Your task to perform on an android device: uninstall "DoorDash - Food Delivery" Image 0: 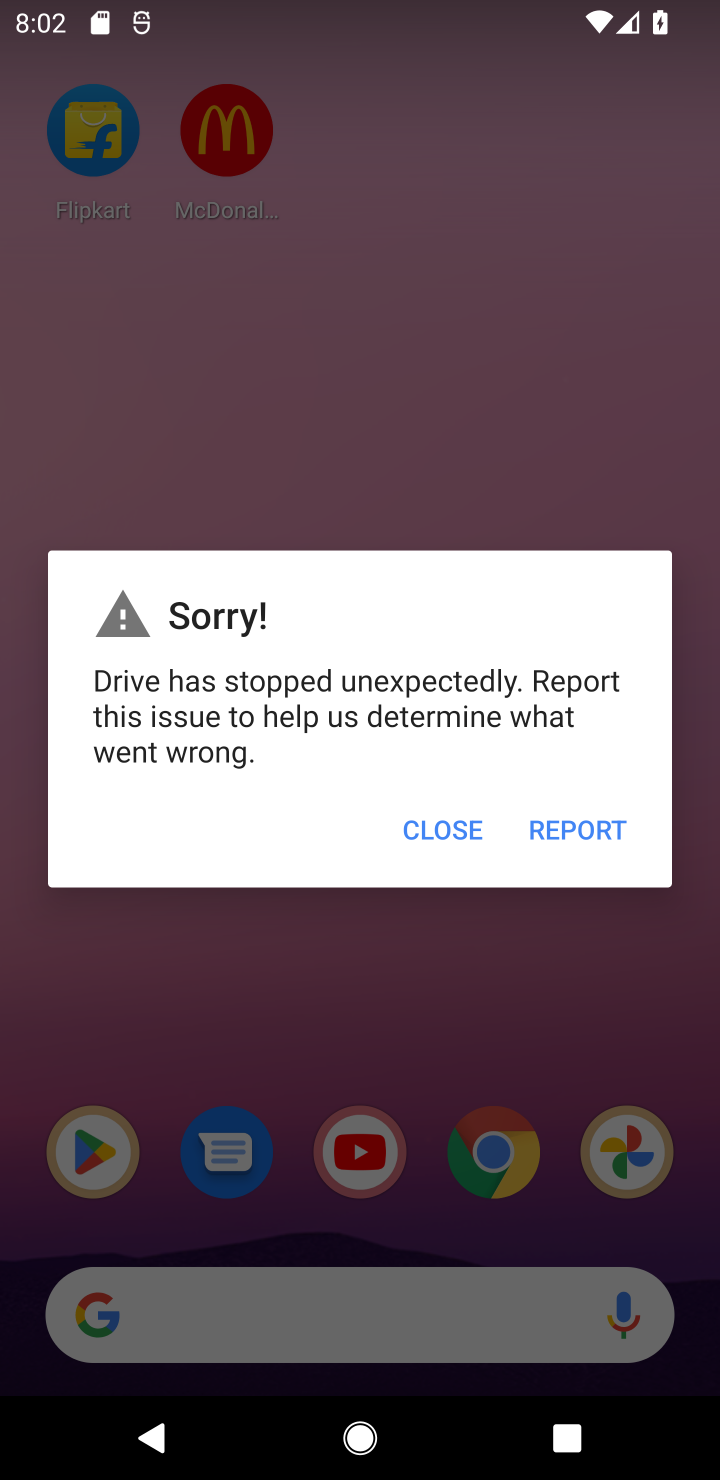
Step 0: click (411, 833)
Your task to perform on an android device: uninstall "DoorDash - Food Delivery" Image 1: 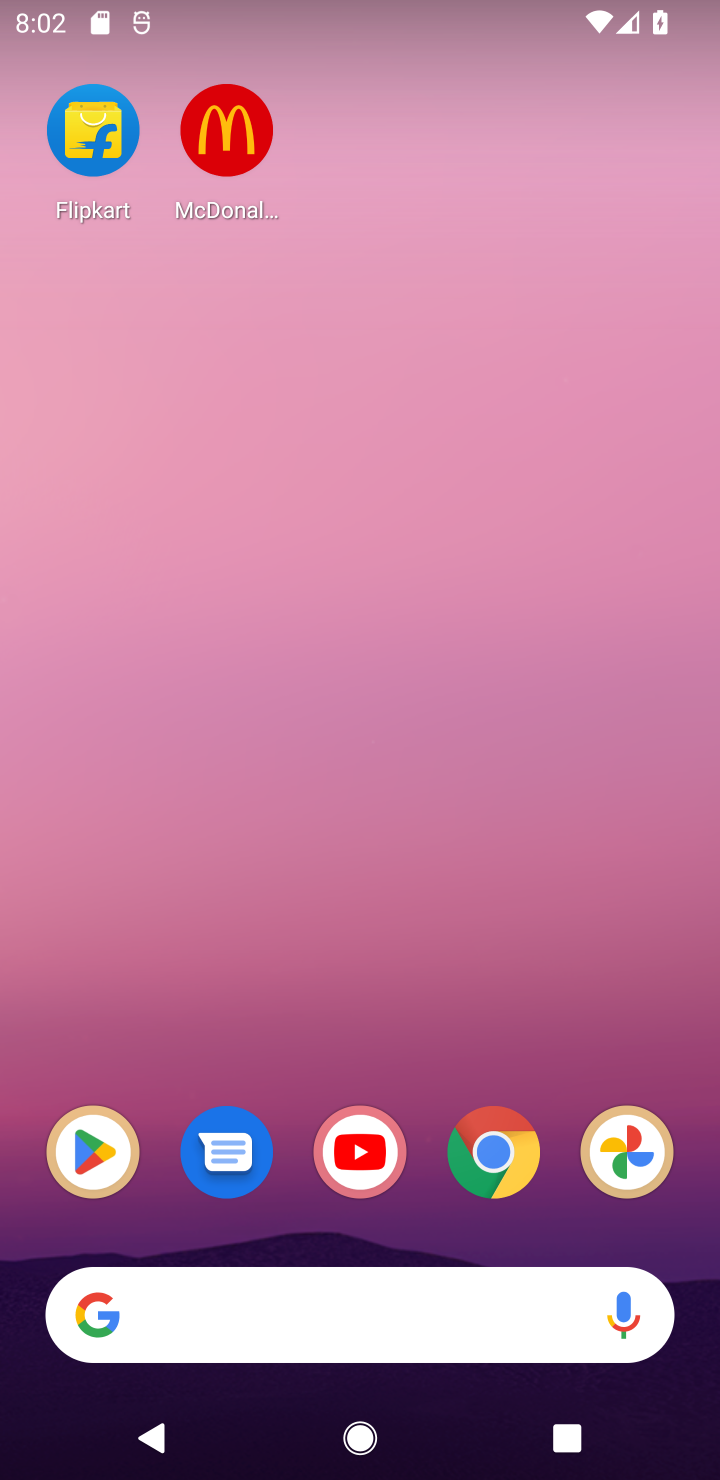
Step 1: drag from (240, 1334) to (265, 363)
Your task to perform on an android device: uninstall "DoorDash - Food Delivery" Image 2: 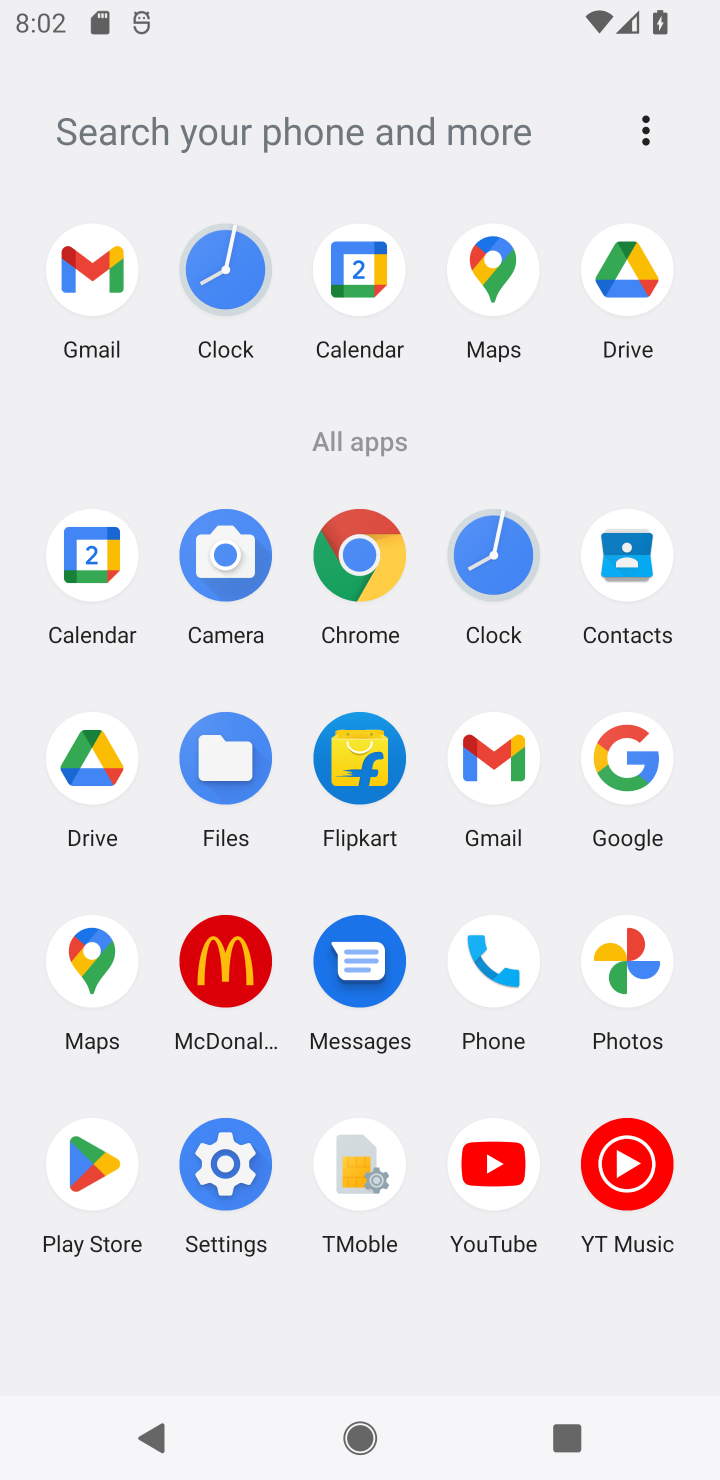
Step 2: click (96, 1271)
Your task to perform on an android device: uninstall "DoorDash - Food Delivery" Image 3: 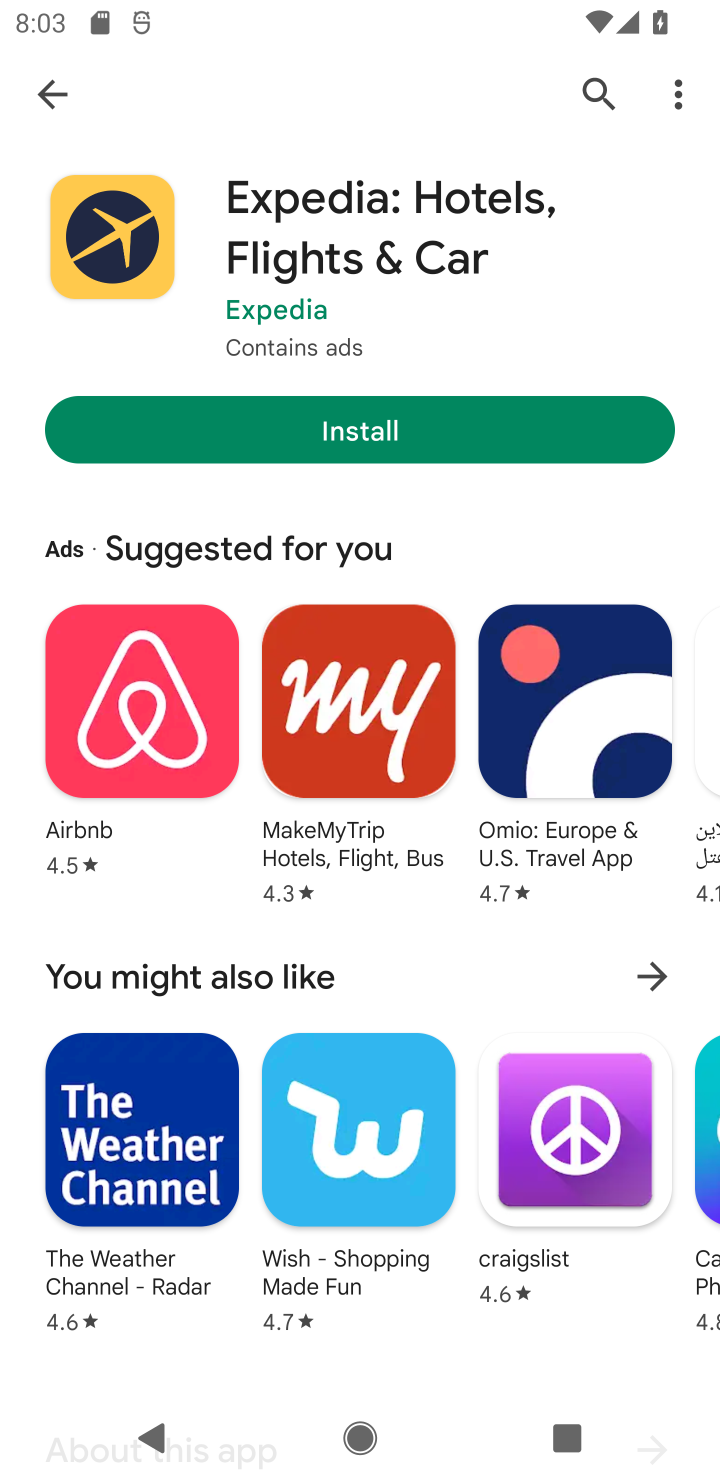
Step 3: click (45, 87)
Your task to perform on an android device: uninstall "DoorDash - Food Delivery" Image 4: 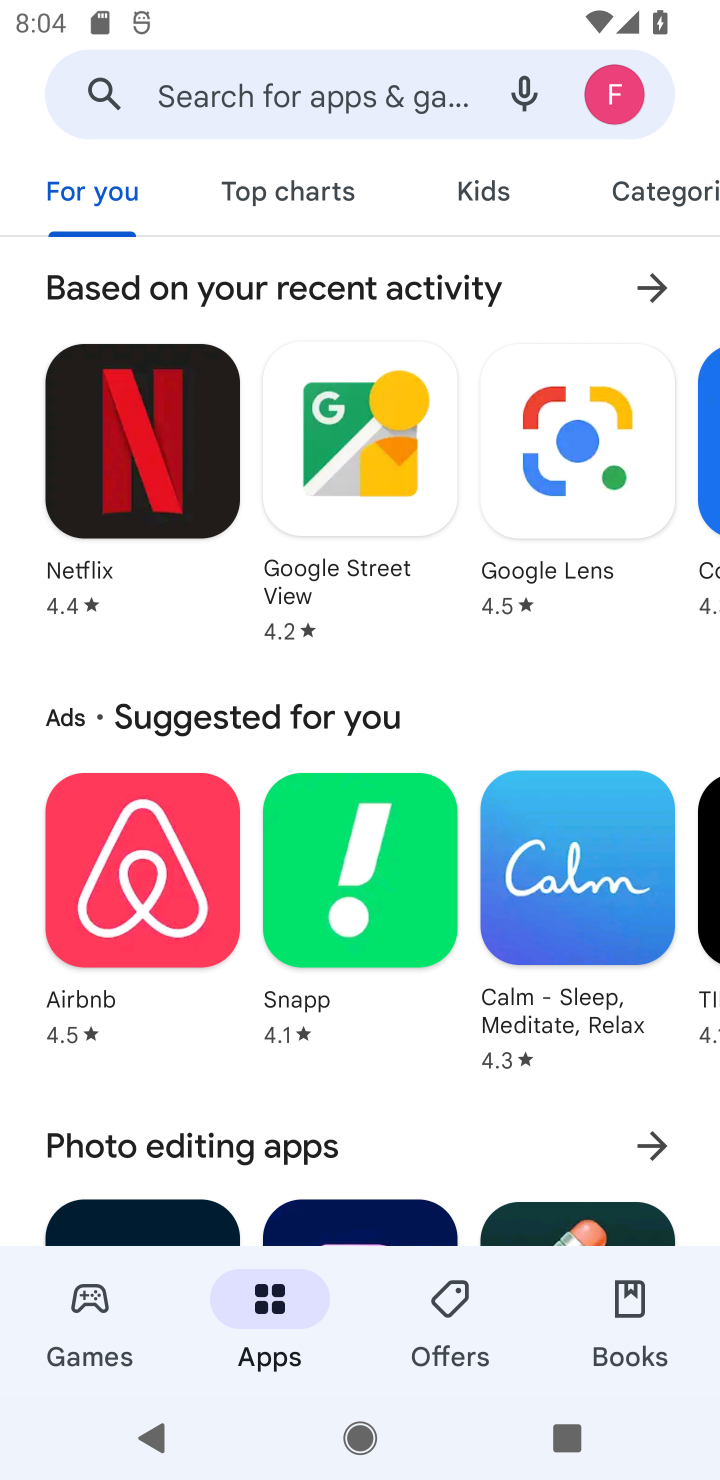
Step 4: click (248, 88)
Your task to perform on an android device: uninstall "DoorDash - Food Delivery" Image 5: 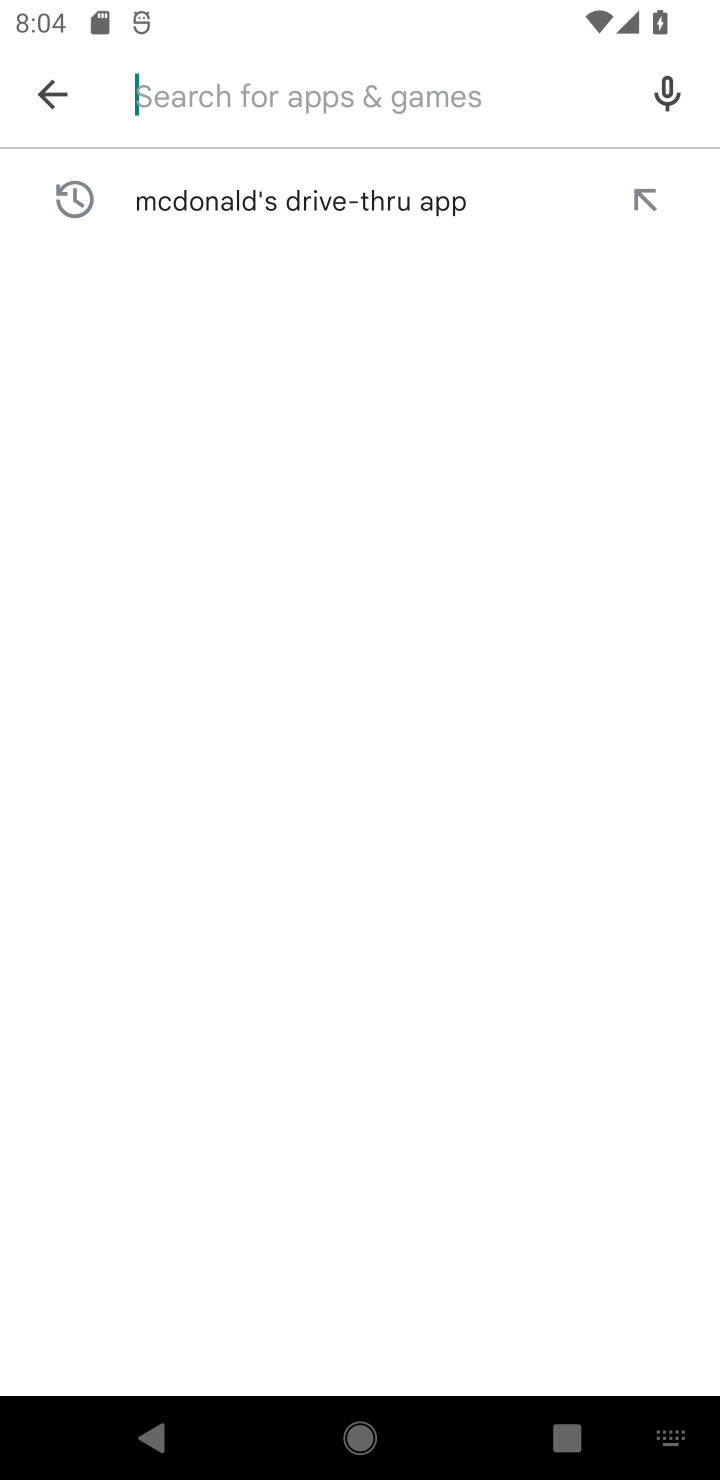
Step 5: type "DoorDash - Food Delivery"
Your task to perform on an android device: uninstall "DoorDash - Food Delivery" Image 6: 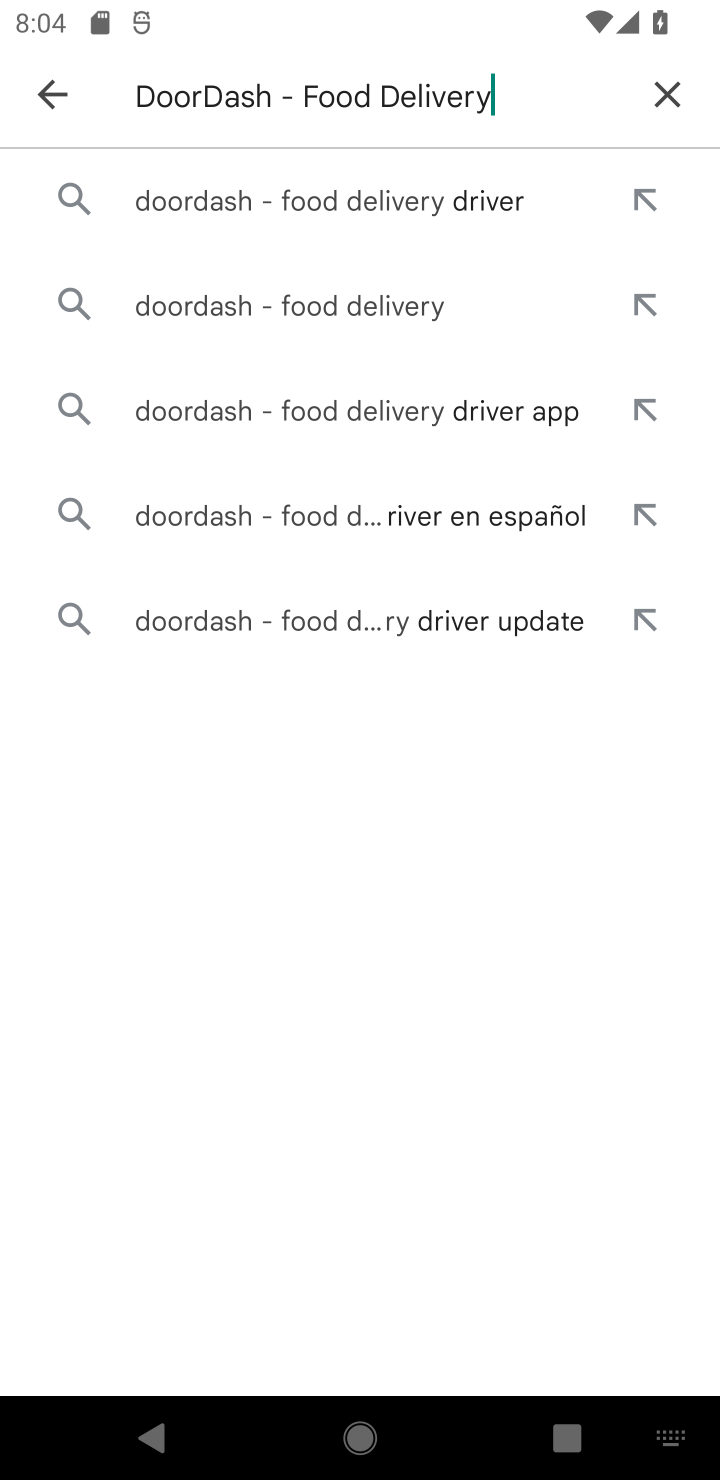
Step 6: click (196, 200)
Your task to perform on an android device: uninstall "DoorDash - Food Delivery" Image 7: 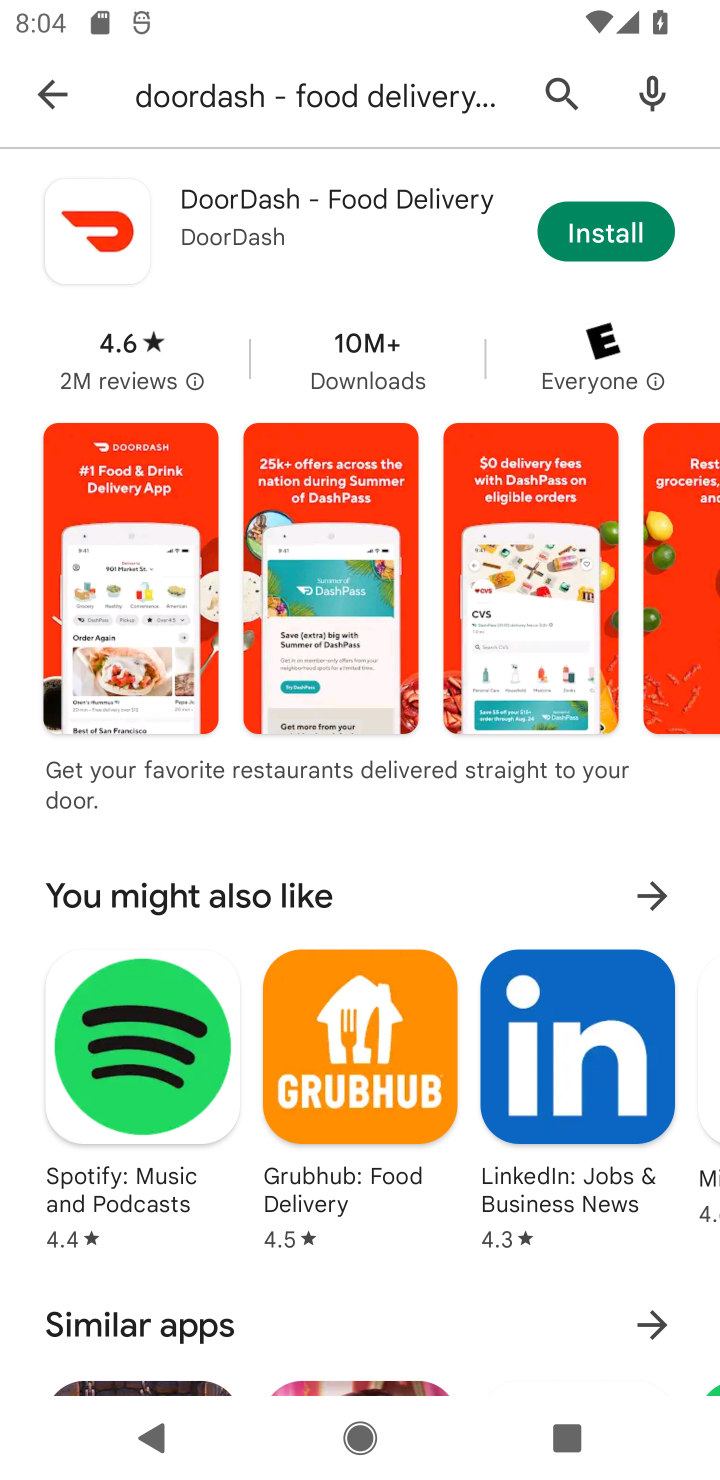
Step 7: click (572, 214)
Your task to perform on an android device: uninstall "DoorDash - Food Delivery" Image 8: 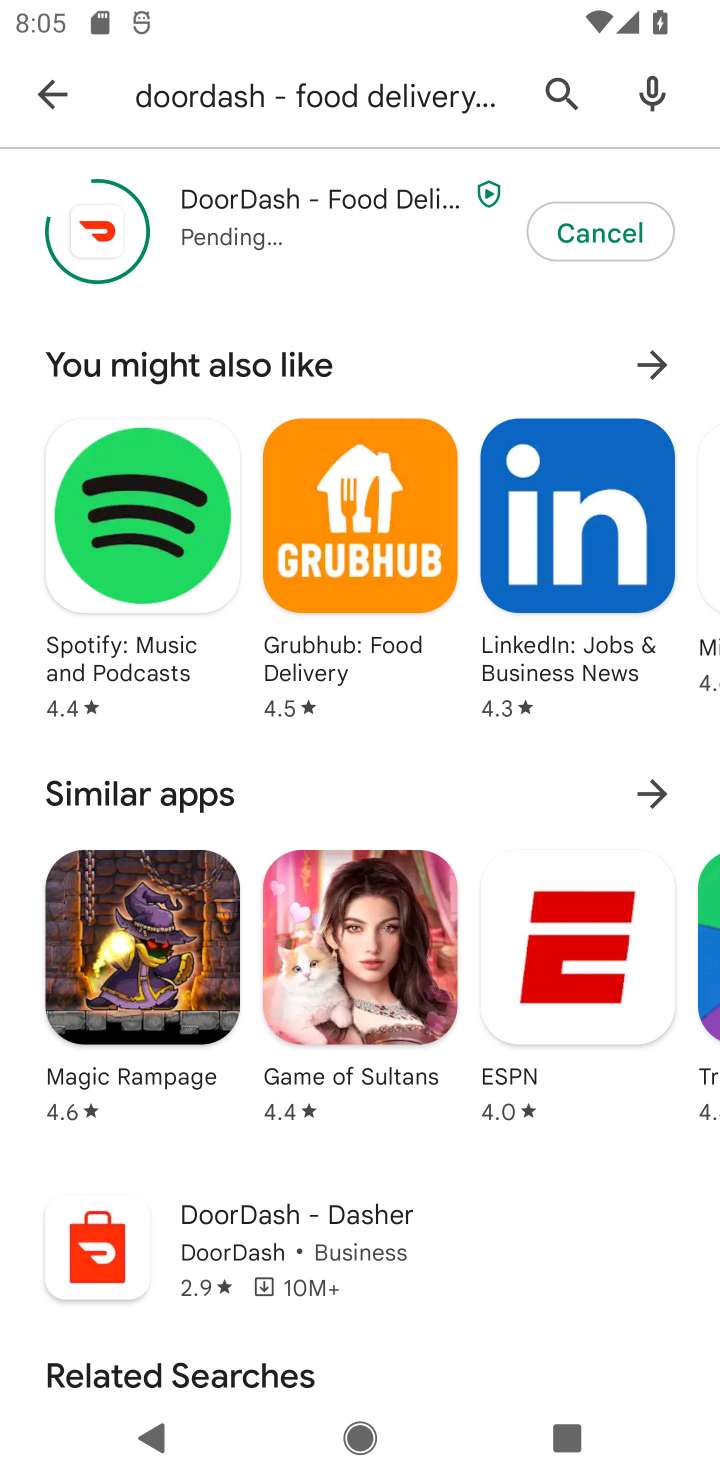
Step 8: task complete